Your task to perform on an android device: Search for Italian restaurants on Maps Image 0: 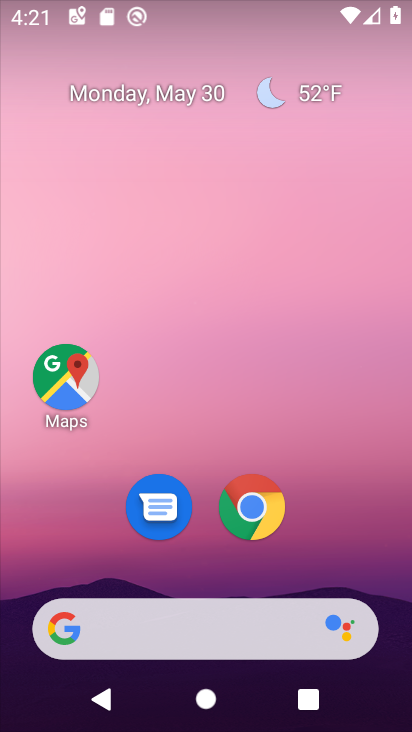
Step 0: drag from (349, 536) to (353, 112)
Your task to perform on an android device: Search for Italian restaurants on Maps Image 1: 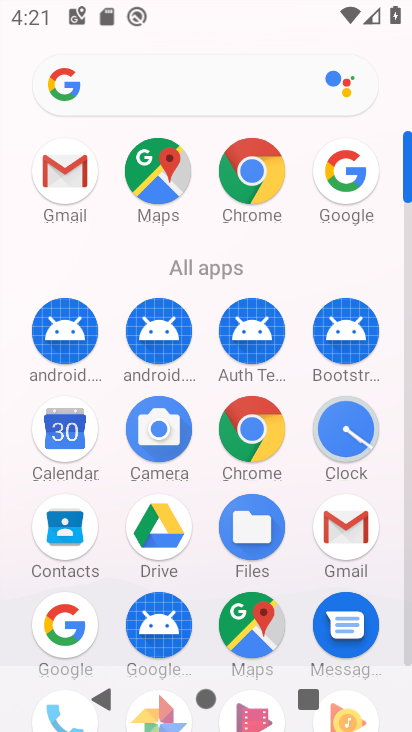
Step 1: click (163, 172)
Your task to perform on an android device: Search for Italian restaurants on Maps Image 2: 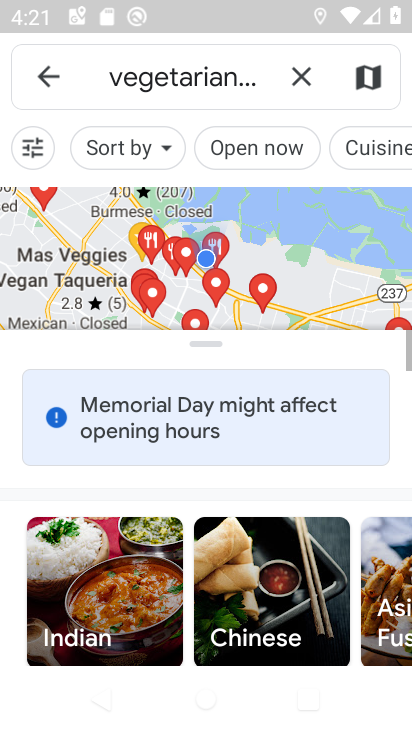
Step 2: click (305, 80)
Your task to perform on an android device: Search for Italian restaurants on Maps Image 3: 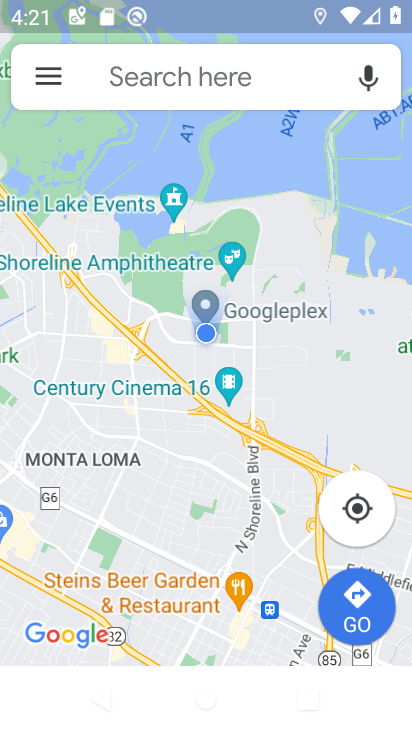
Step 3: click (84, 81)
Your task to perform on an android device: Search for Italian restaurants on Maps Image 4: 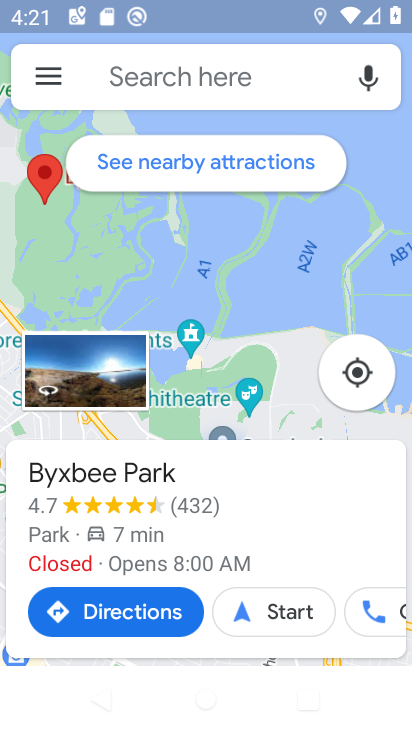
Step 4: click (229, 77)
Your task to perform on an android device: Search for Italian restaurants on Maps Image 5: 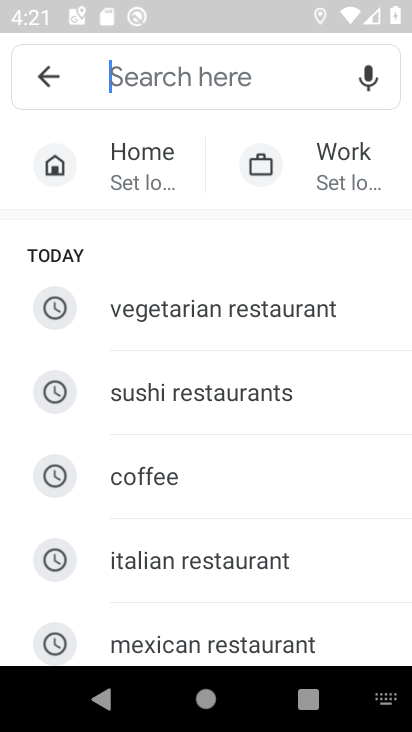
Step 5: type " Italian restaurants"
Your task to perform on an android device: Search for Italian restaurants on Maps Image 6: 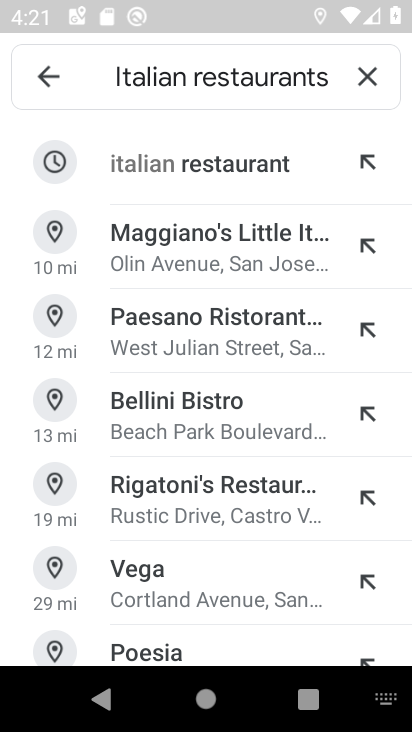
Step 6: click (243, 179)
Your task to perform on an android device: Search for Italian restaurants on Maps Image 7: 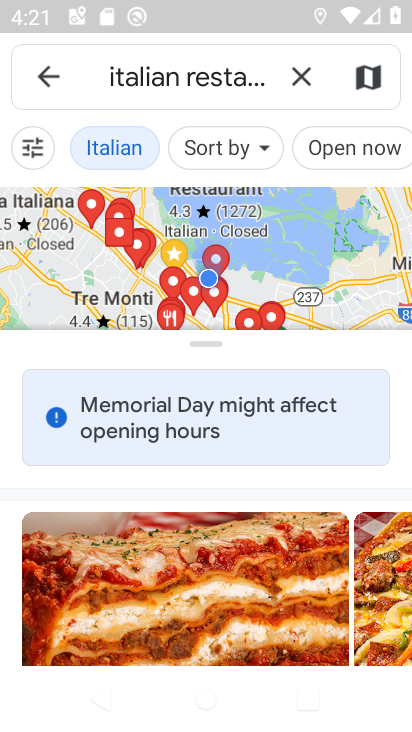
Step 7: task complete